Your task to perform on an android device: Go to Reddit.com Image 0: 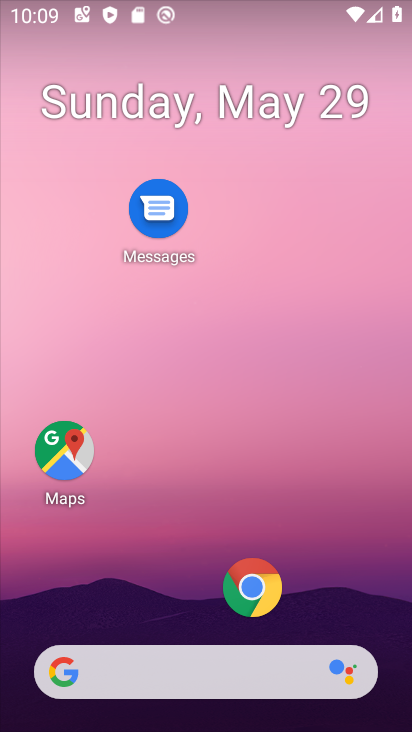
Step 0: click (267, 578)
Your task to perform on an android device: Go to Reddit.com Image 1: 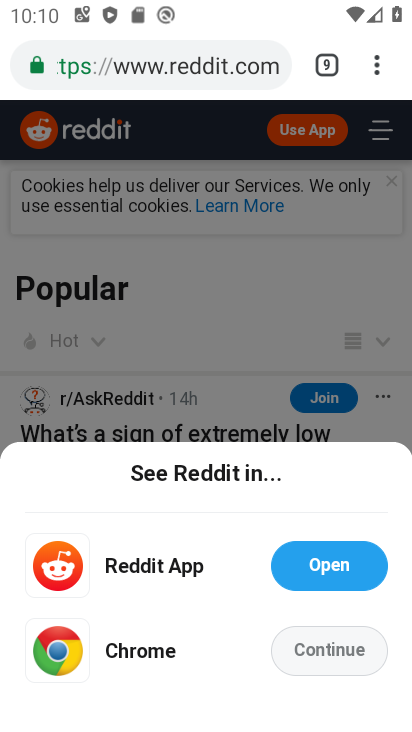
Step 1: click (328, 69)
Your task to perform on an android device: Go to Reddit.com Image 2: 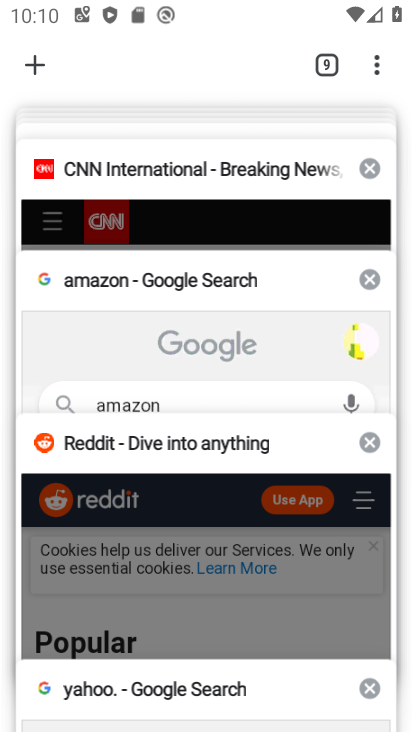
Step 2: click (150, 568)
Your task to perform on an android device: Go to Reddit.com Image 3: 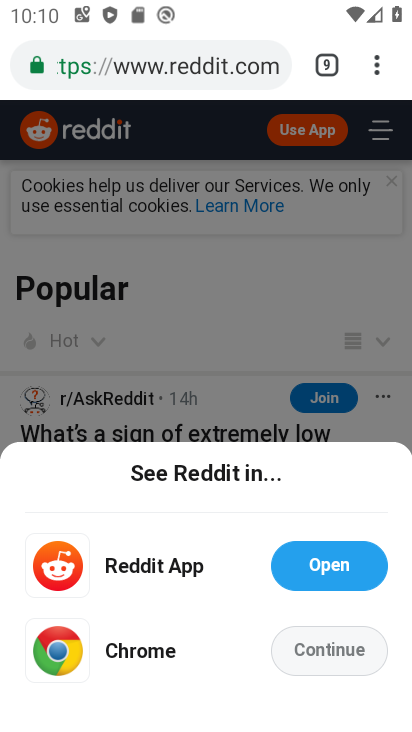
Step 3: task complete